Your task to perform on an android device: Open the web browser Image 0: 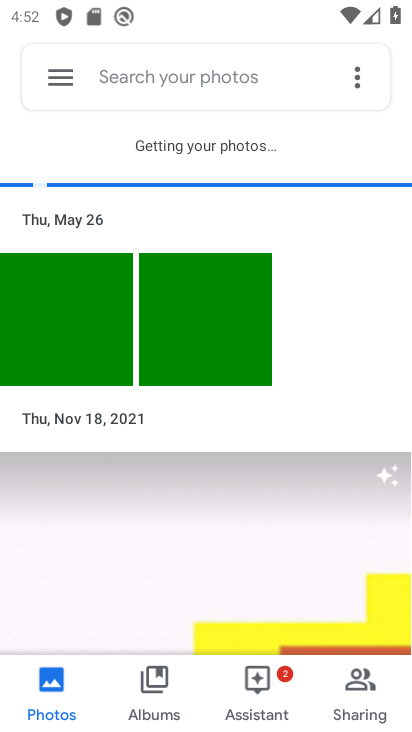
Step 0: press home button
Your task to perform on an android device: Open the web browser Image 1: 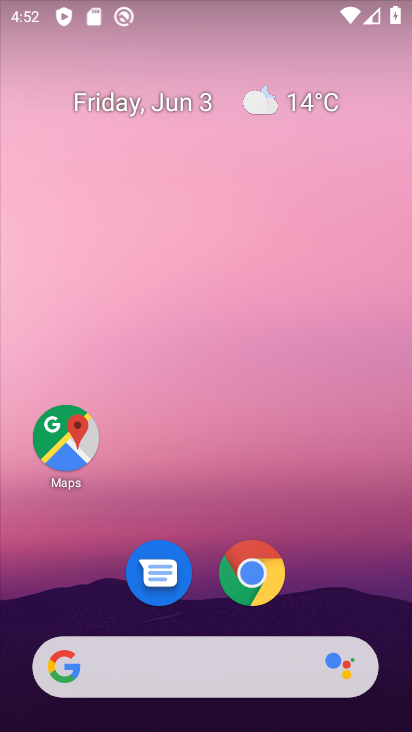
Step 1: click (239, 567)
Your task to perform on an android device: Open the web browser Image 2: 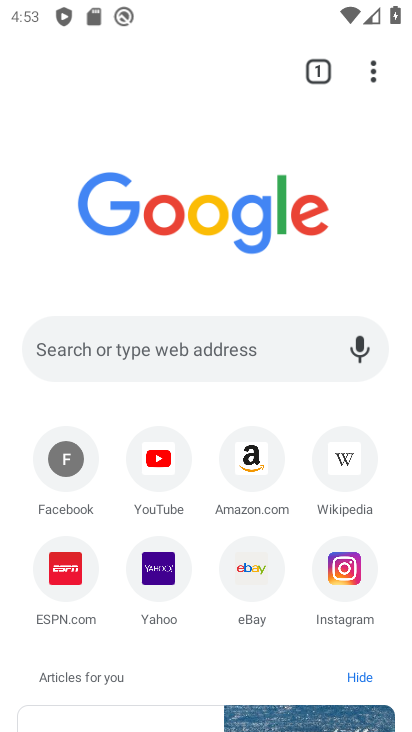
Step 2: task complete